Your task to perform on an android device: Search for seafood restaurants on Google Maps Image 0: 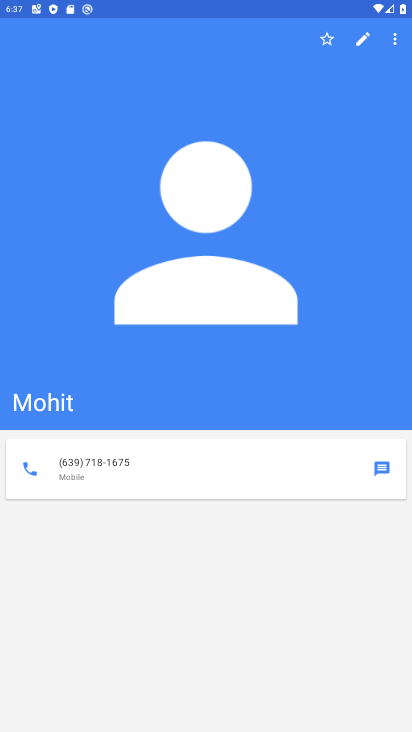
Step 0: press home button
Your task to perform on an android device: Search for seafood restaurants on Google Maps Image 1: 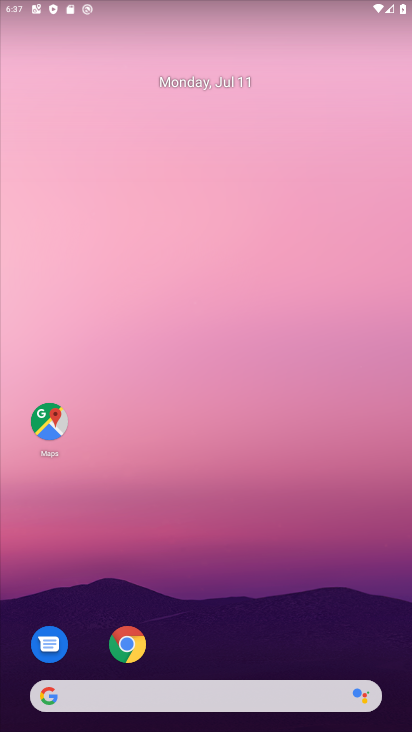
Step 1: drag from (398, 58) to (407, 4)
Your task to perform on an android device: Search for seafood restaurants on Google Maps Image 2: 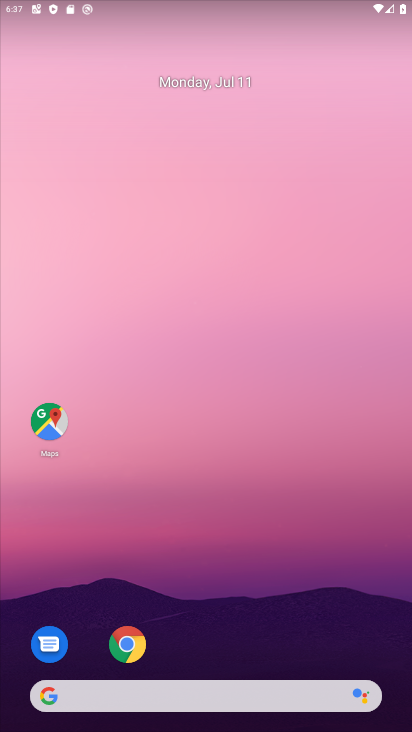
Step 2: drag from (236, 650) to (245, 13)
Your task to perform on an android device: Search for seafood restaurants on Google Maps Image 3: 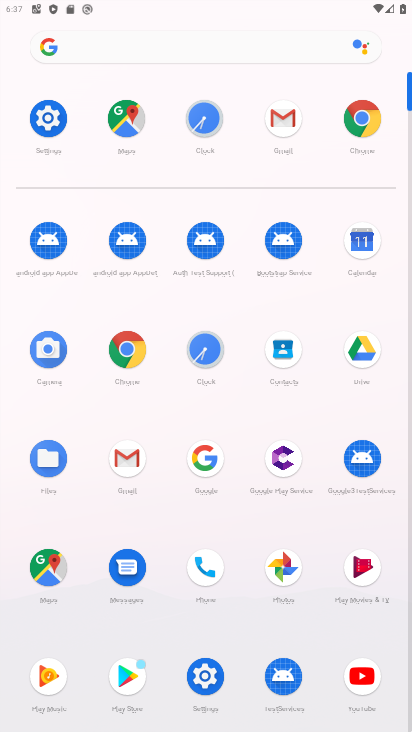
Step 3: click (54, 564)
Your task to perform on an android device: Search for seafood restaurants on Google Maps Image 4: 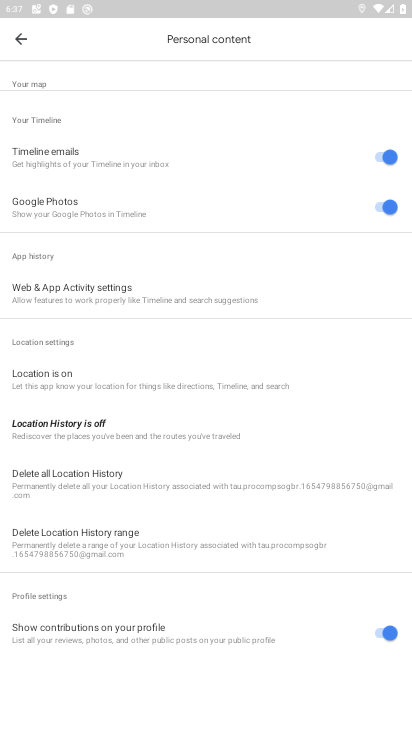
Step 4: press back button
Your task to perform on an android device: Search for seafood restaurants on Google Maps Image 5: 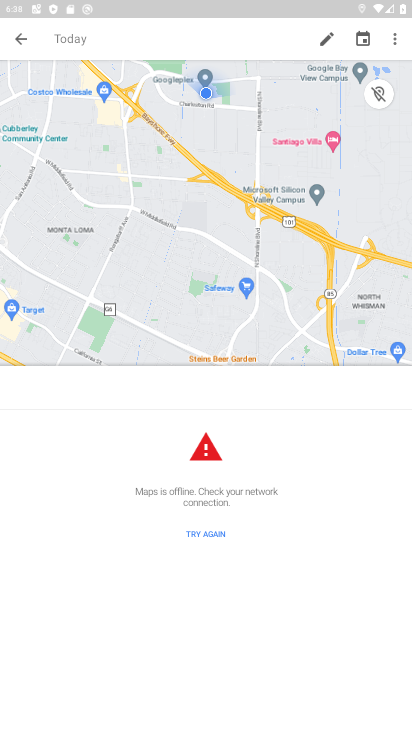
Step 5: press back button
Your task to perform on an android device: Search for seafood restaurants on Google Maps Image 6: 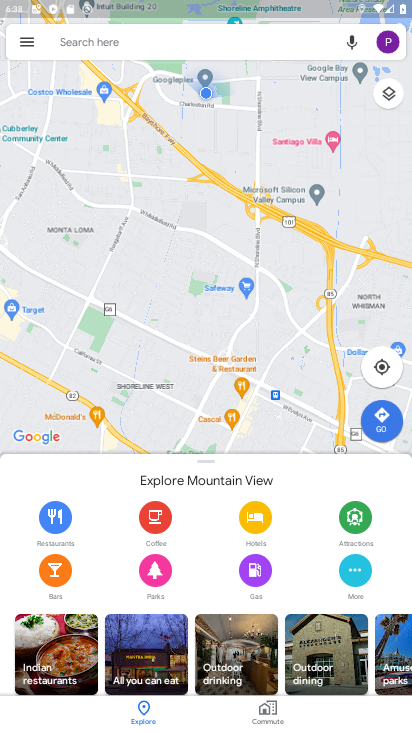
Step 6: click (175, 37)
Your task to perform on an android device: Search for seafood restaurants on Google Maps Image 7: 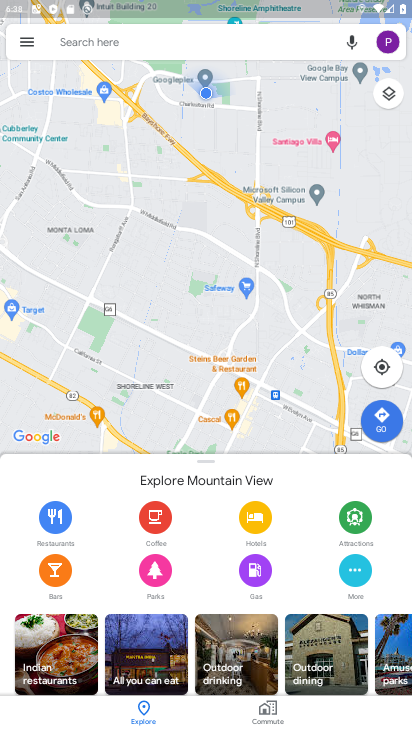
Step 7: click (175, 37)
Your task to perform on an android device: Search for seafood restaurants on Google Maps Image 8: 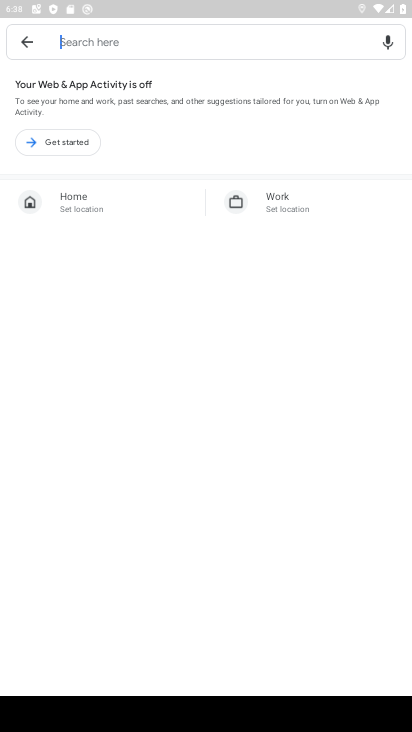
Step 8: type "seafood restaurant"
Your task to perform on an android device: Search for seafood restaurants on Google Maps Image 9: 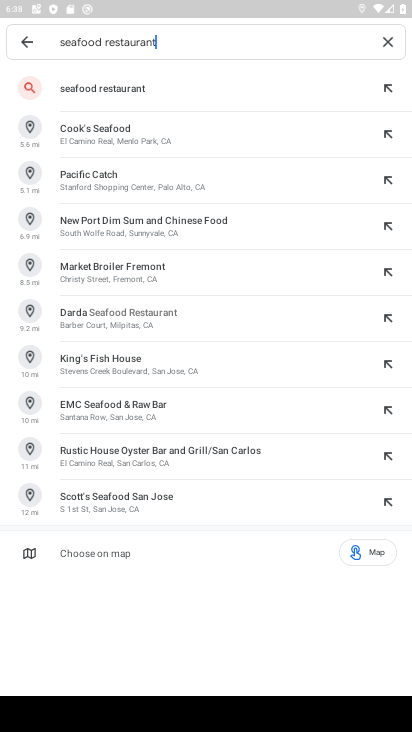
Step 9: click (127, 91)
Your task to perform on an android device: Search for seafood restaurants on Google Maps Image 10: 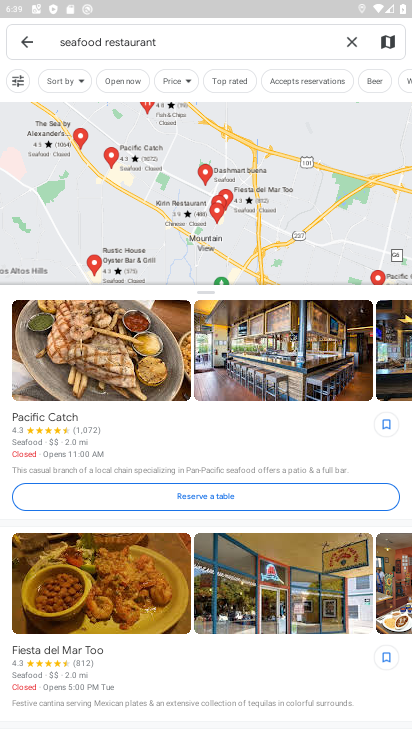
Step 10: task complete